Your task to perform on an android device: turn off location Image 0: 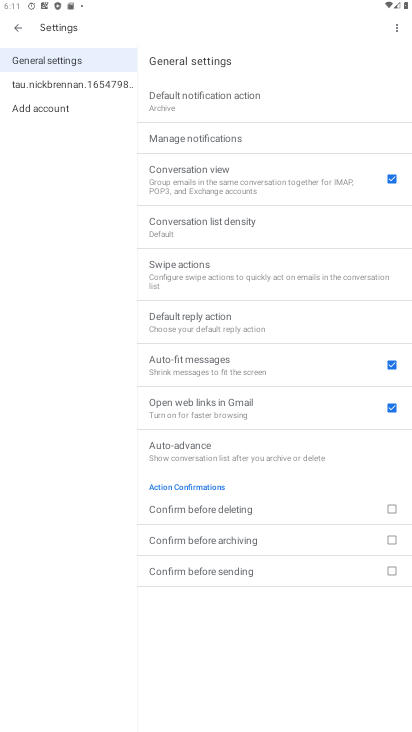
Step 0: press home button
Your task to perform on an android device: turn off location Image 1: 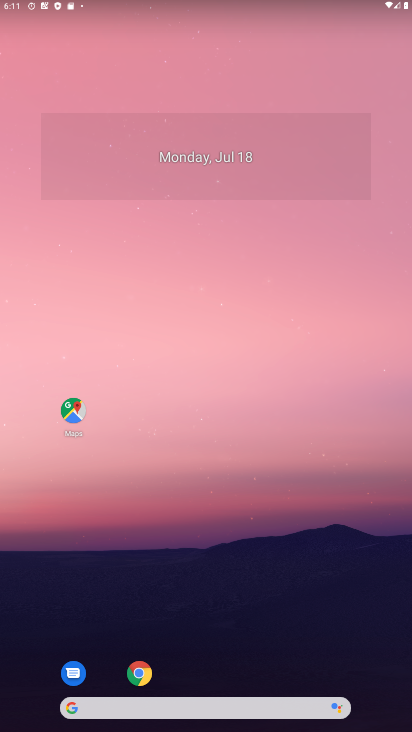
Step 1: drag from (240, 586) to (269, 121)
Your task to perform on an android device: turn off location Image 2: 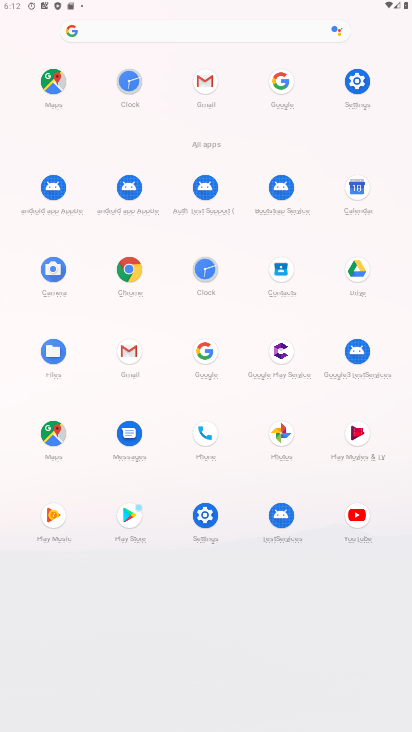
Step 2: click (209, 510)
Your task to perform on an android device: turn off location Image 3: 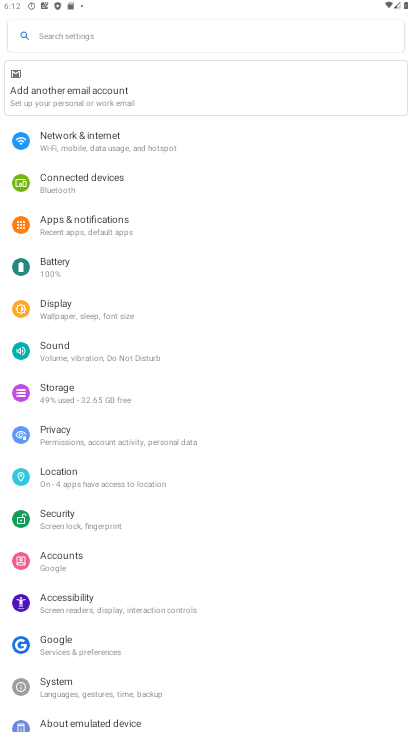
Step 3: click (55, 477)
Your task to perform on an android device: turn off location Image 4: 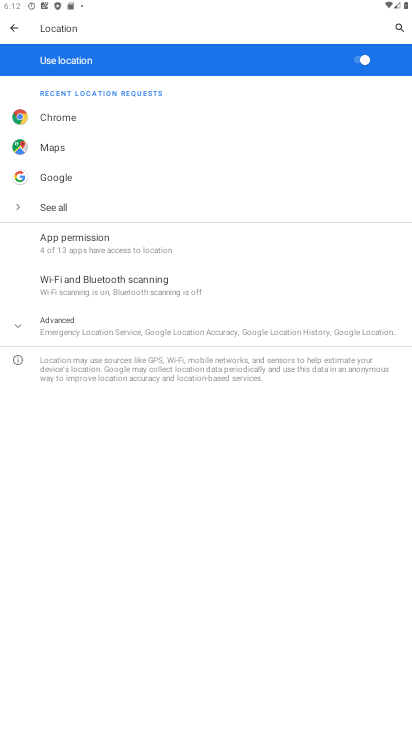
Step 4: click (362, 62)
Your task to perform on an android device: turn off location Image 5: 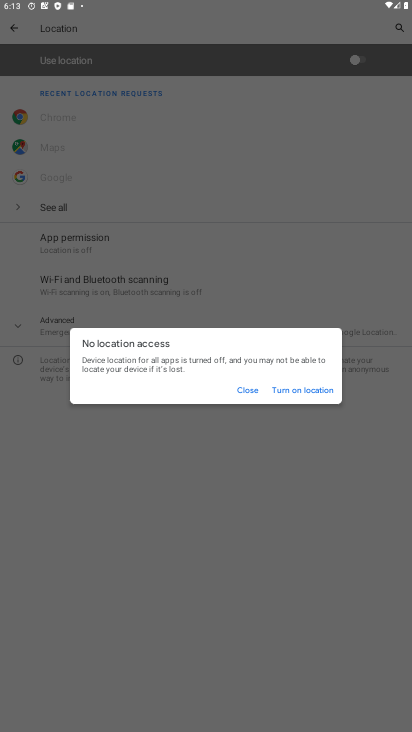
Step 5: click (255, 387)
Your task to perform on an android device: turn off location Image 6: 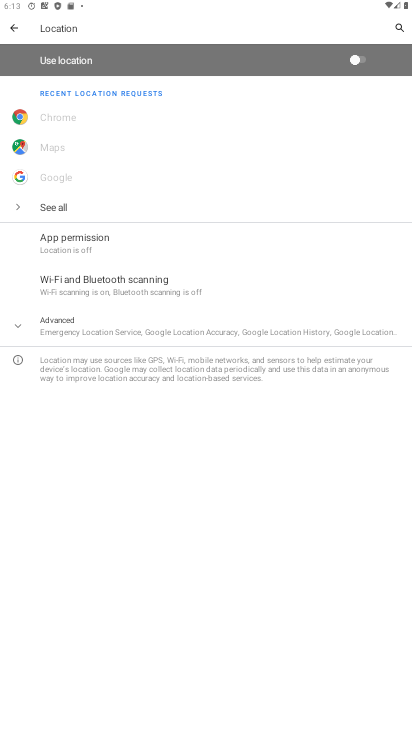
Step 6: task complete